Your task to perform on an android device: manage bookmarks in the chrome app Image 0: 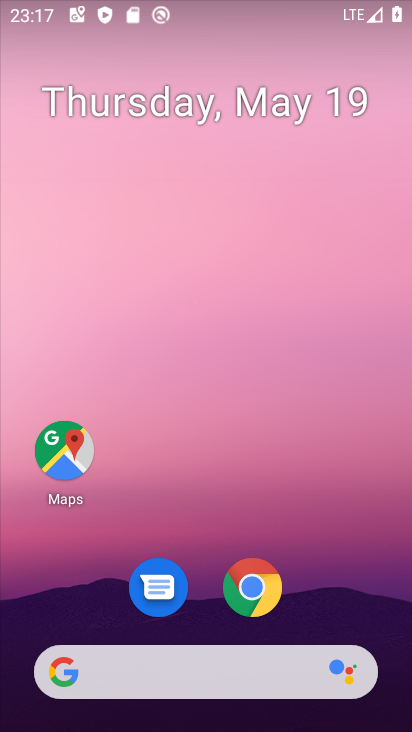
Step 0: press home button
Your task to perform on an android device: manage bookmarks in the chrome app Image 1: 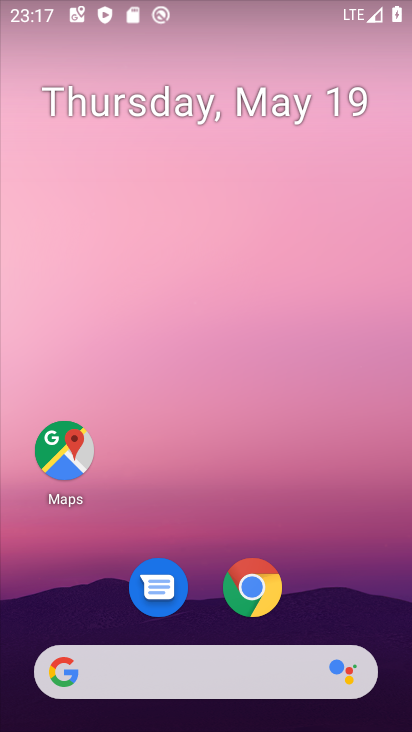
Step 1: drag from (280, 701) to (256, 323)
Your task to perform on an android device: manage bookmarks in the chrome app Image 2: 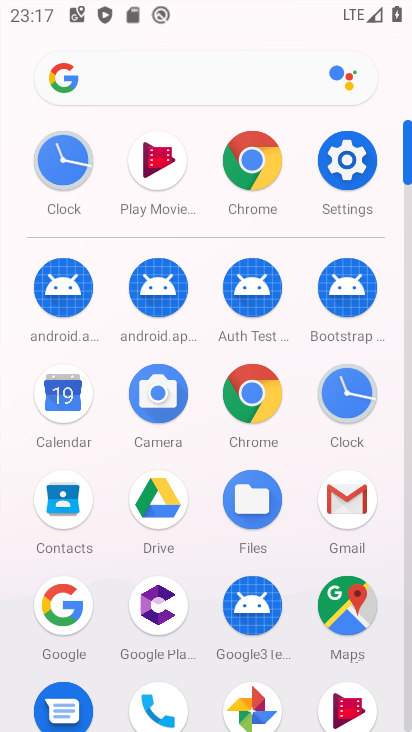
Step 2: click (246, 170)
Your task to perform on an android device: manage bookmarks in the chrome app Image 3: 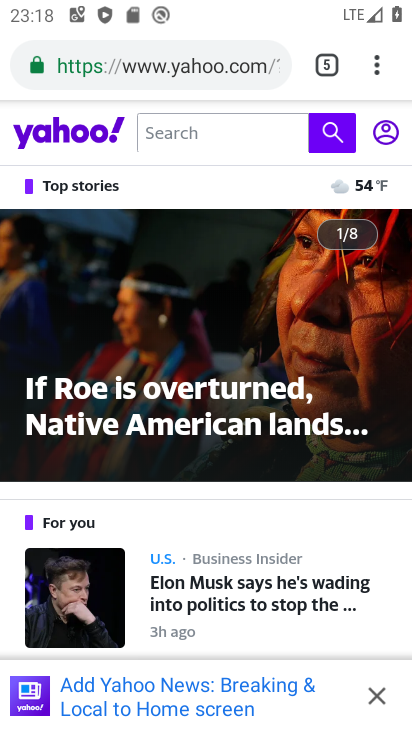
Step 3: click (373, 76)
Your task to perform on an android device: manage bookmarks in the chrome app Image 4: 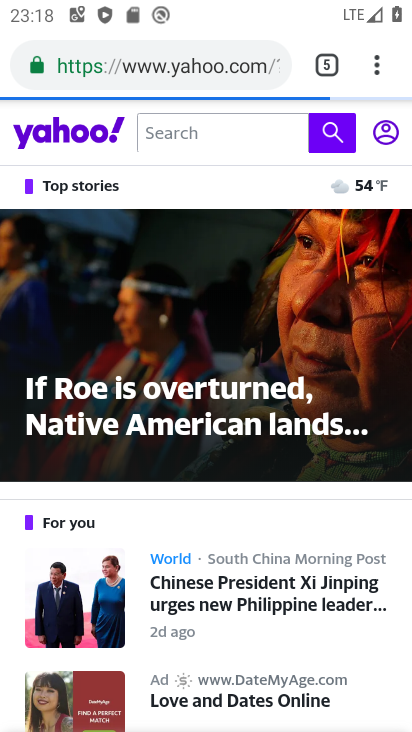
Step 4: click (362, 79)
Your task to perform on an android device: manage bookmarks in the chrome app Image 5: 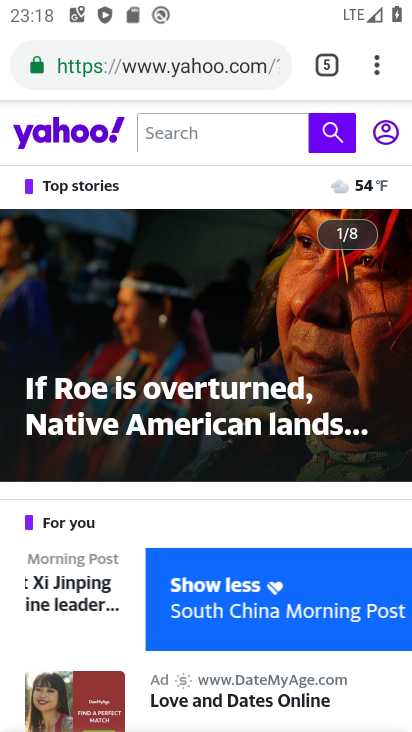
Step 5: click (385, 65)
Your task to perform on an android device: manage bookmarks in the chrome app Image 6: 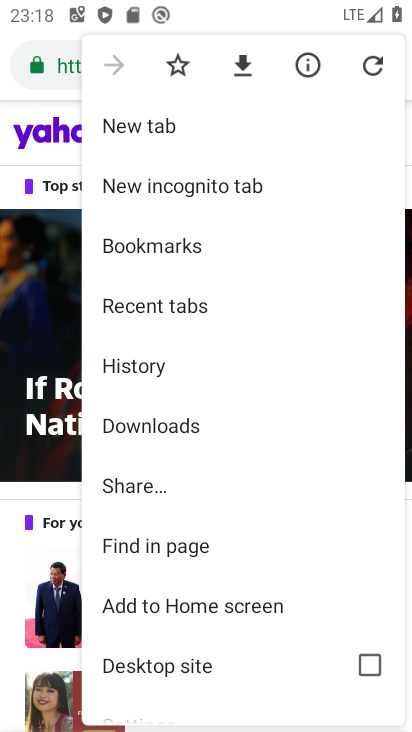
Step 6: drag from (166, 665) to (228, 416)
Your task to perform on an android device: manage bookmarks in the chrome app Image 7: 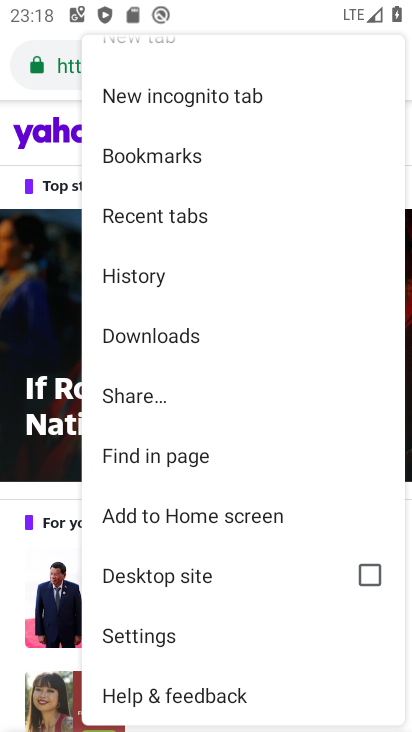
Step 7: click (189, 626)
Your task to perform on an android device: manage bookmarks in the chrome app Image 8: 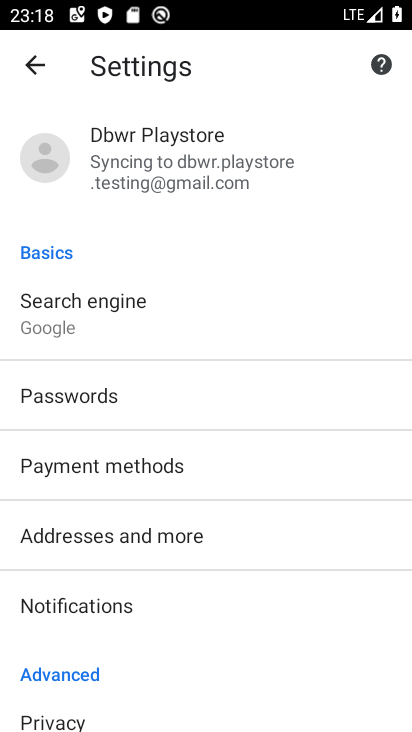
Step 8: click (33, 81)
Your task to perform on an android device: manage bookmarks in the chrome app Image 9: 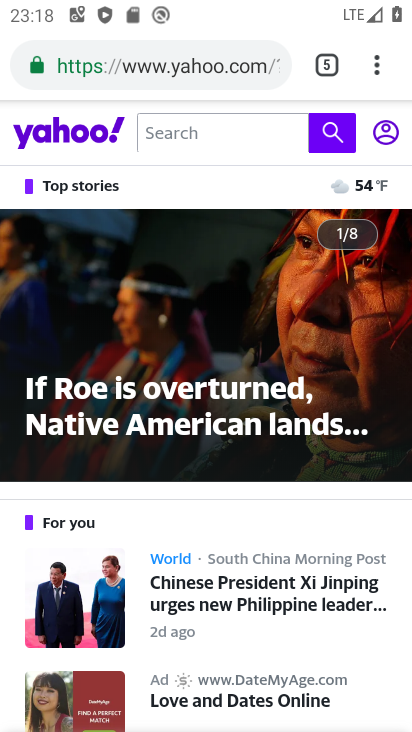
Step 9: click (362, 90)
Your task to perform on an android device: manage bookmarks in the chrome app Image 10: 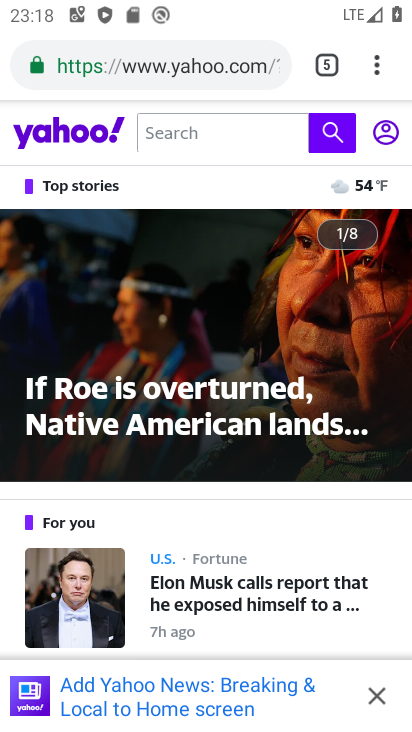
Step 10: click (370, 76)
Your task to perform on an android device: manage bookmarks in the chrome app Image 11: 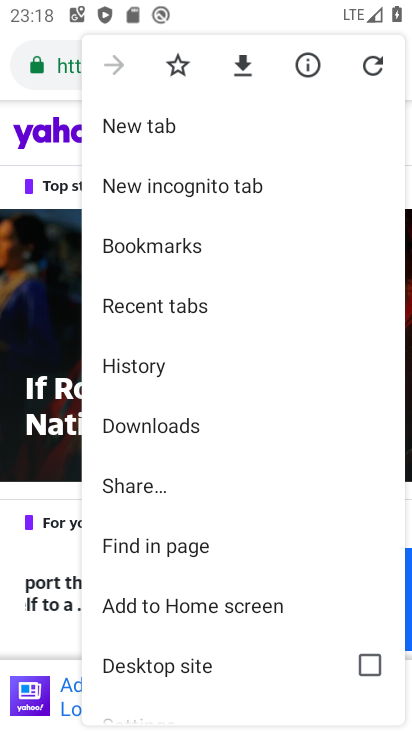
Step 11: click (209, 245)
Your task to perform on an android device: manage bookmarks in the chrome app Image 12: 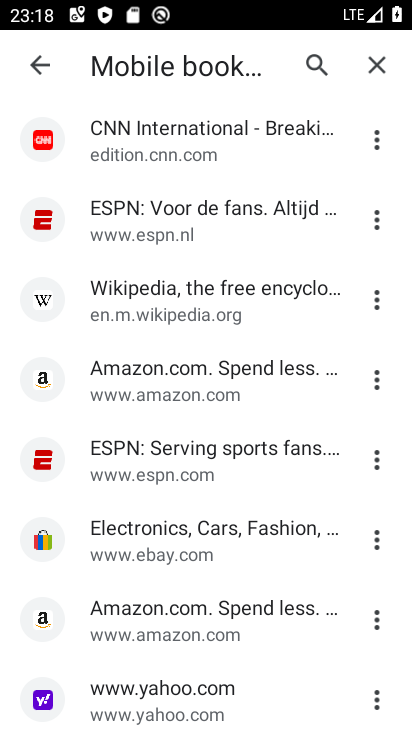
Step 12: task complete